Your task to perform on an android device: move a message to another label in the gmail app Image 0: 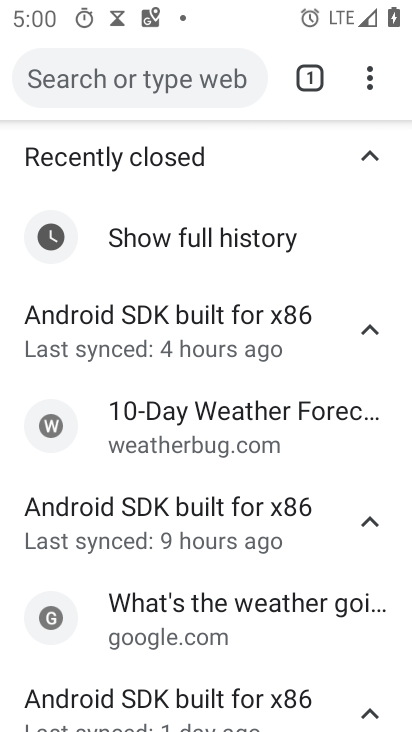
Step 0: press home button
Your task to perform on an android device: move a message to another label in the gmail app Image 1: 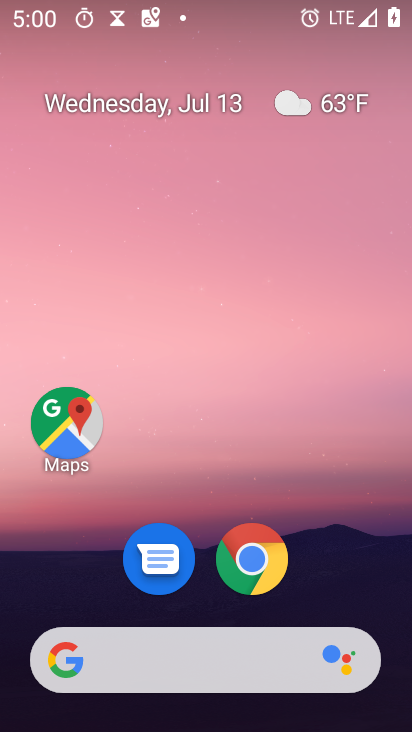
Step 1: drag from (389, 592) to (329, 243)
Your task to perform on an android device: move a message to another label in the gmail app Image 2: 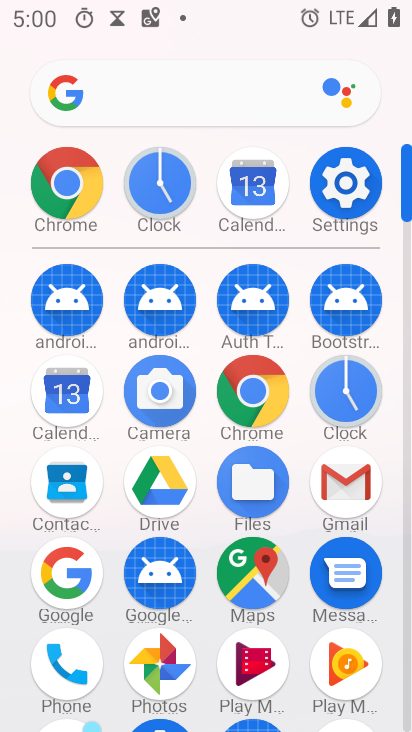
Step 2: click (342, 468)
Your task to perform on an android device: move a message to another label in the gmail app Image 3: 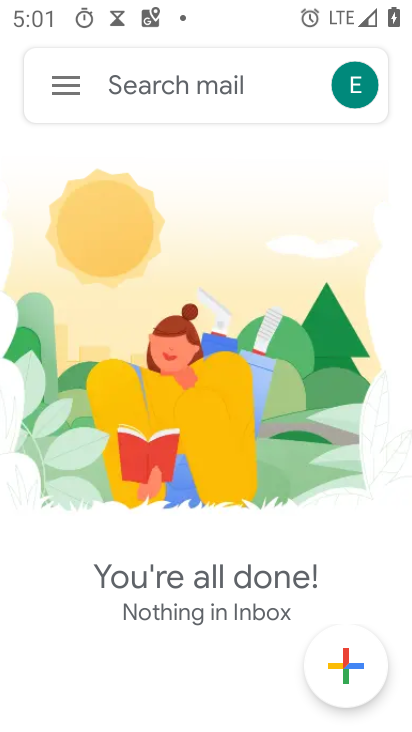
Step 3: task complete